Your task to perform on an android device: Search for seafood restaurants on Google Maps Image 0: 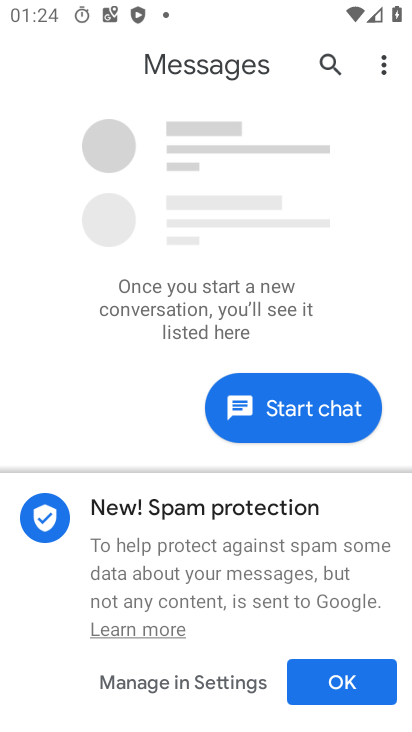
Step 0: press back button
Your task to perform on an android device: Search for seafood restaurants on Google Maps Image 1: 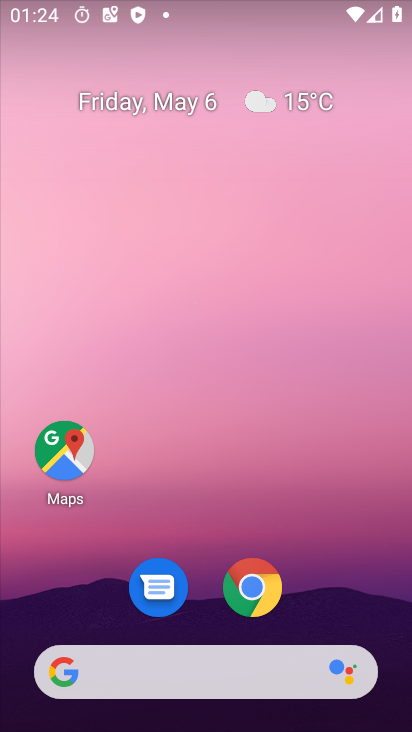
Step 1: drag from (399, 636) to (371, 282)
Your task to perform on an android device: Search for seafood restaurants on Google Maps Image 2: 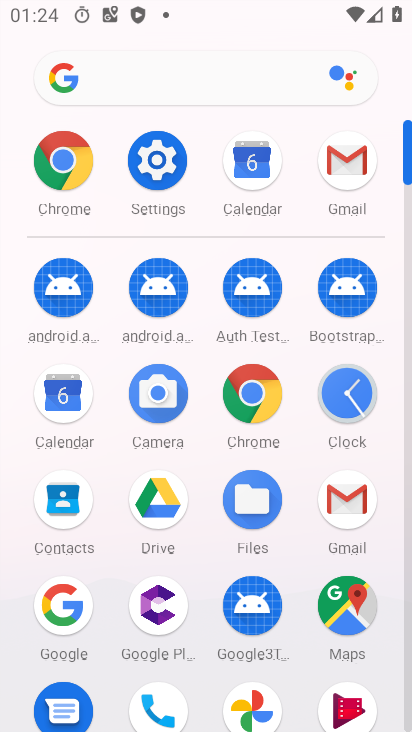
Step 2: click (363, 608)
Your task to perform on an android device: Search for seafood restaurants on Google Maps Image 3: 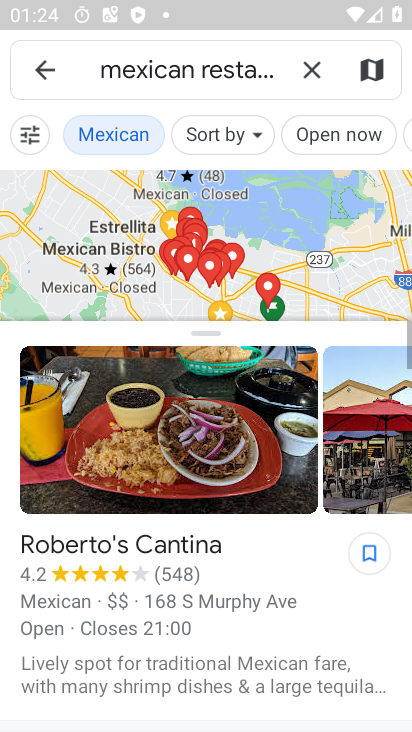
Step 3: click (302, 67)
Your task to perform on an android device: Search for seafood restaurants on Google Maps Image 4: 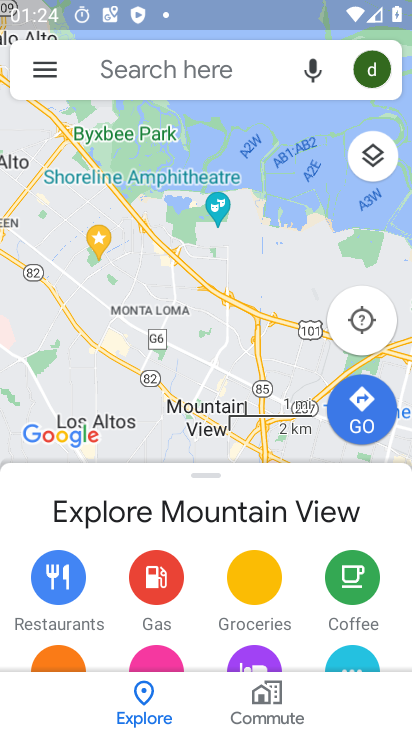
Step 4: click (84, 82)
Your task to perform on an android device: Search for seafood restaurants on Google Maps Image 5: 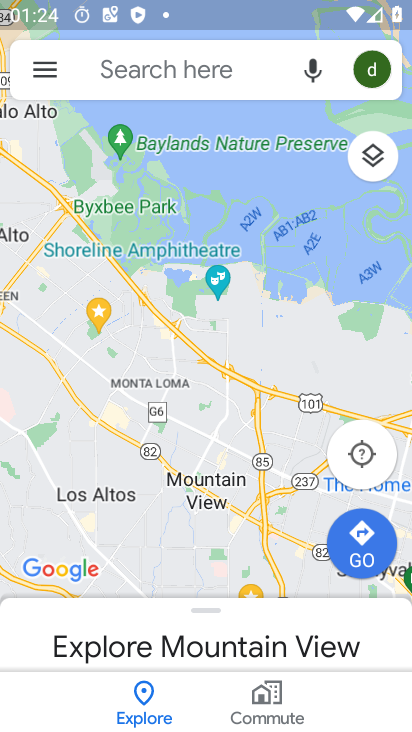
Step 5: type "seafood restaurants"
Your task to perform on an android device: Search for seafood restaurants on Google Maps Image 6: 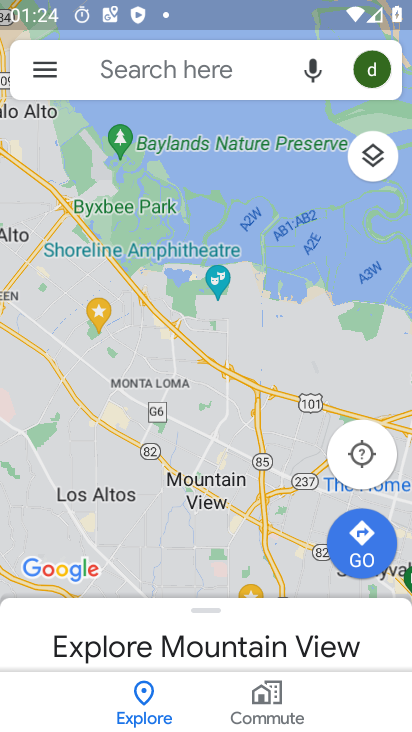
Step 6: click (94, 71)
Your task to perform on an android device: Search for seafood restaurants on Google Maps Image 7: 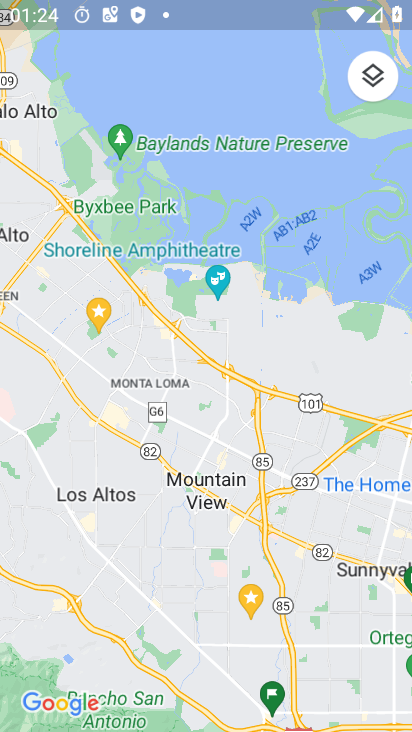
Step 7: press back button
Your task to perform on an android device: Search for seafood restaurants on Google Maps Image 8: 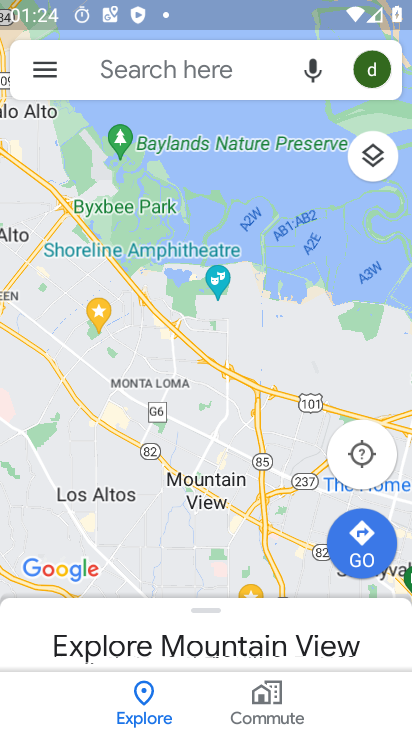
Step 8: click (101, 60)
Your task to perform on an android device: Search for seafood restaurants on Google Maps Image 9: 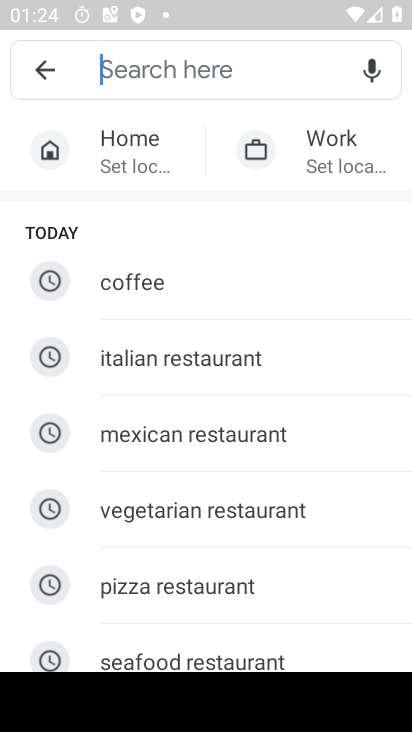
Step 9: type "seafood restaurants"
Your task to perform on an android device: Search for seafood restaurants on Google Maps Image 10: 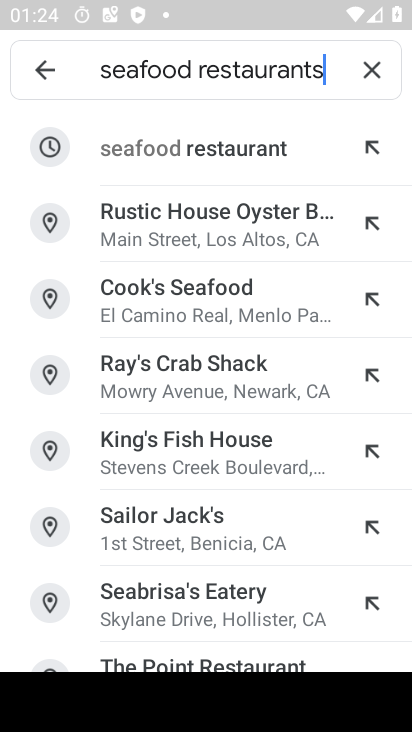
Step 10: click (254, 144)
Your task to perform on an android device: Search for seafood restaurants on Google Maps Image 11: 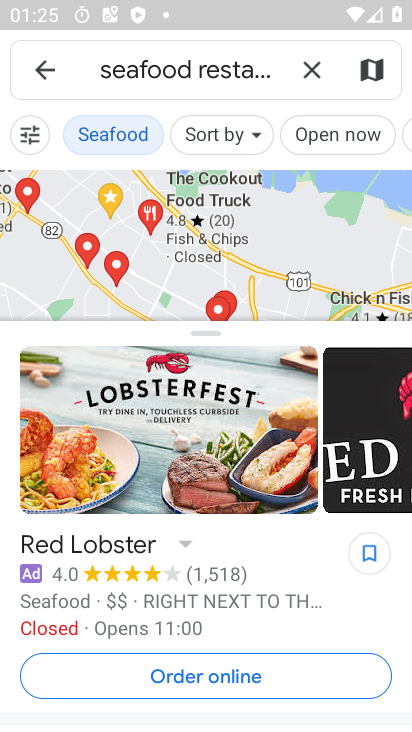
Step 11: task complete